Your task to perform on an android device: open app "Reddit" Image 0: 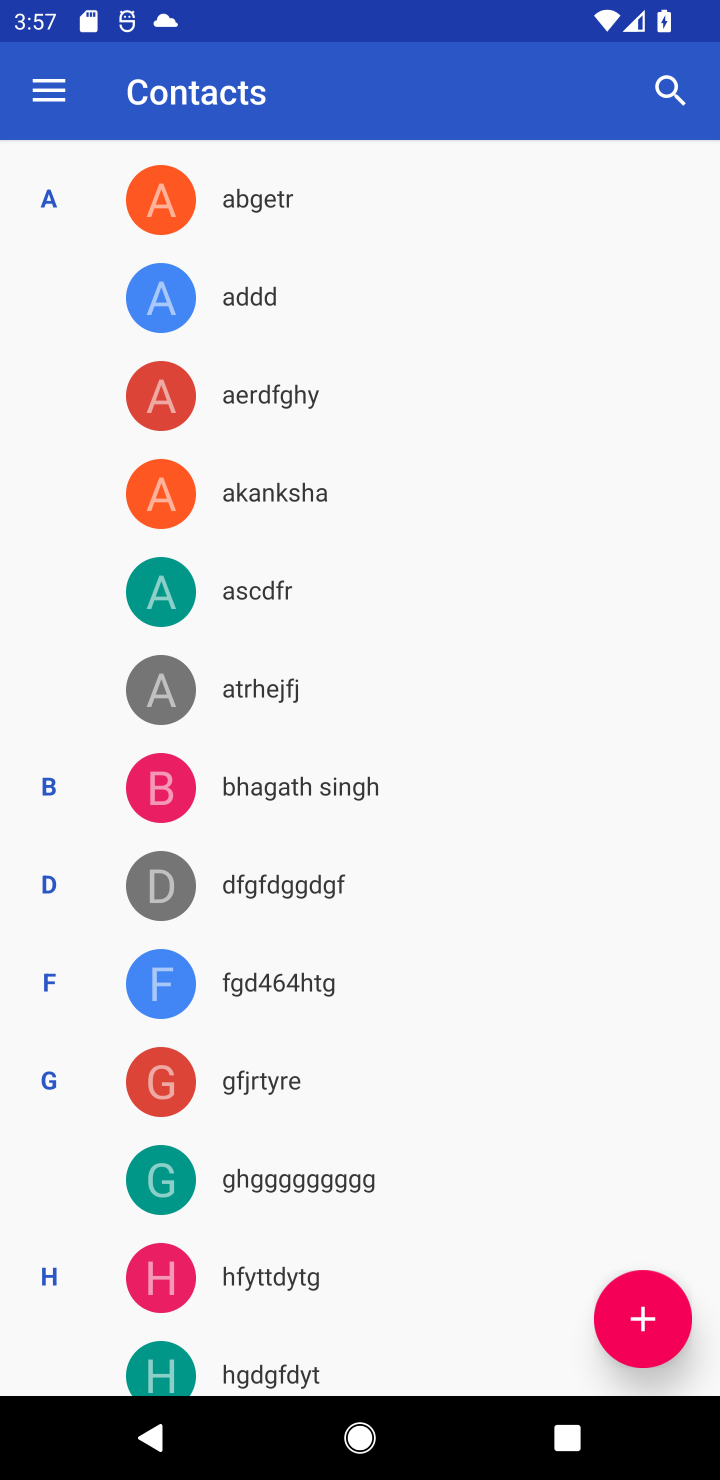
Step 0: press home button
Your task to perform on an android device: open app "Reddit" Image 1: 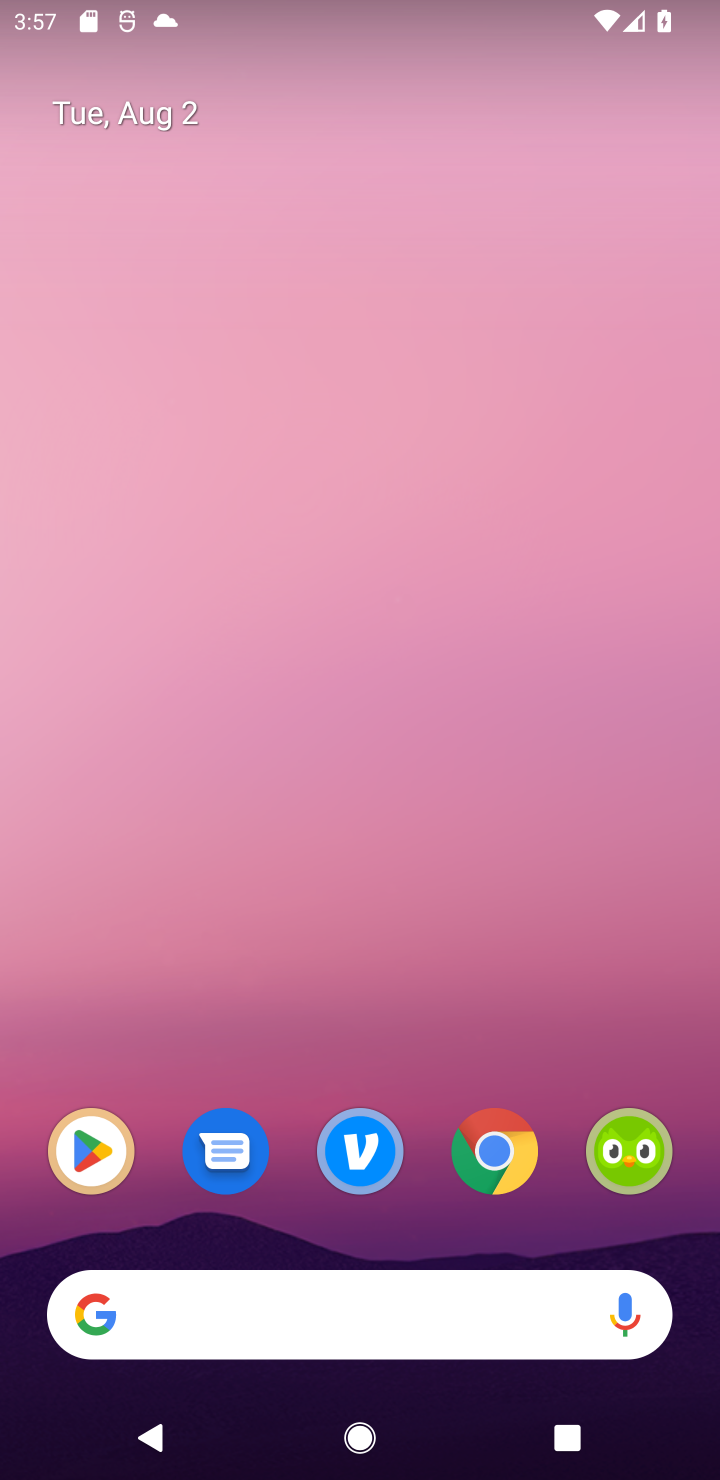
Step 1: drag from (381, 1298) to (416, 572)
Your task to perform on an android device: open app "Reddit" Image 2: 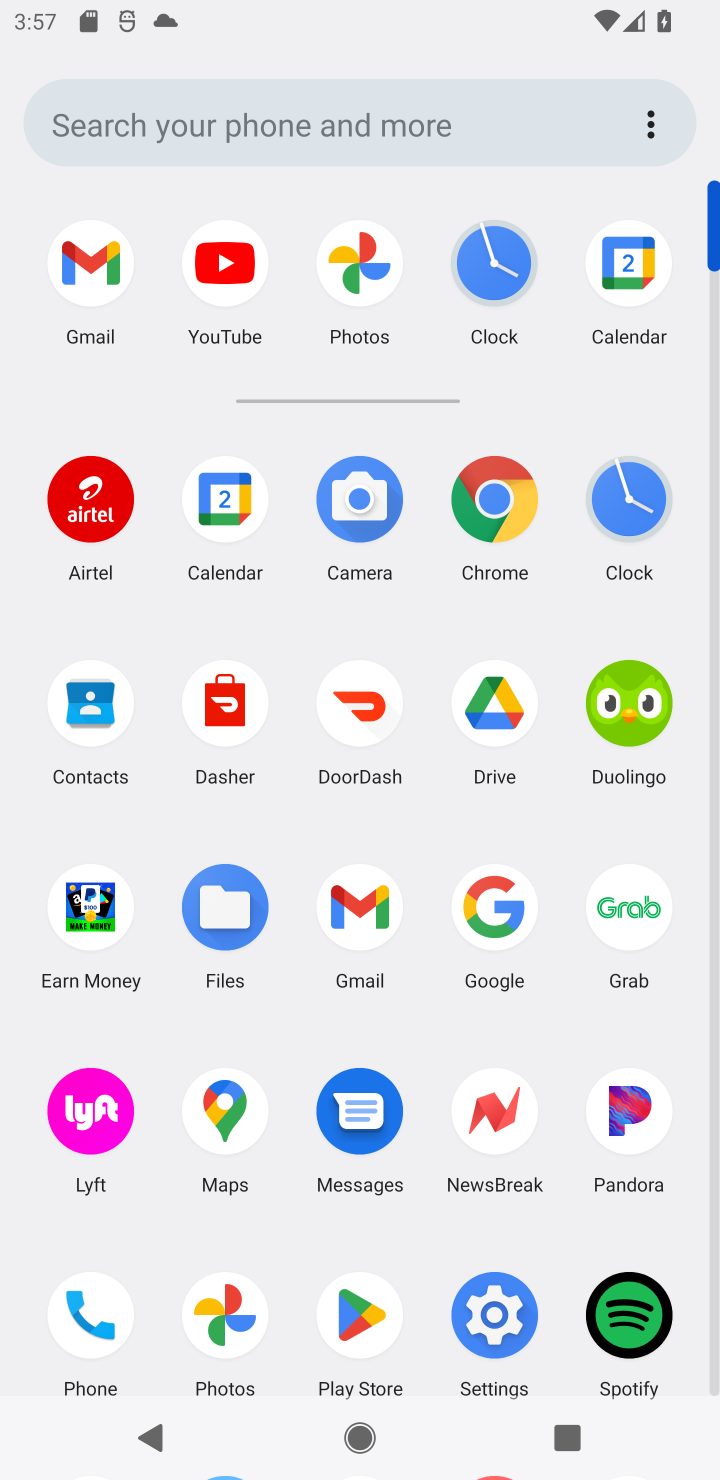
Step 2: drag from (408, 1148) to (429, 548)
Your task to perform on an android device: open app "Reddit" Image 3: 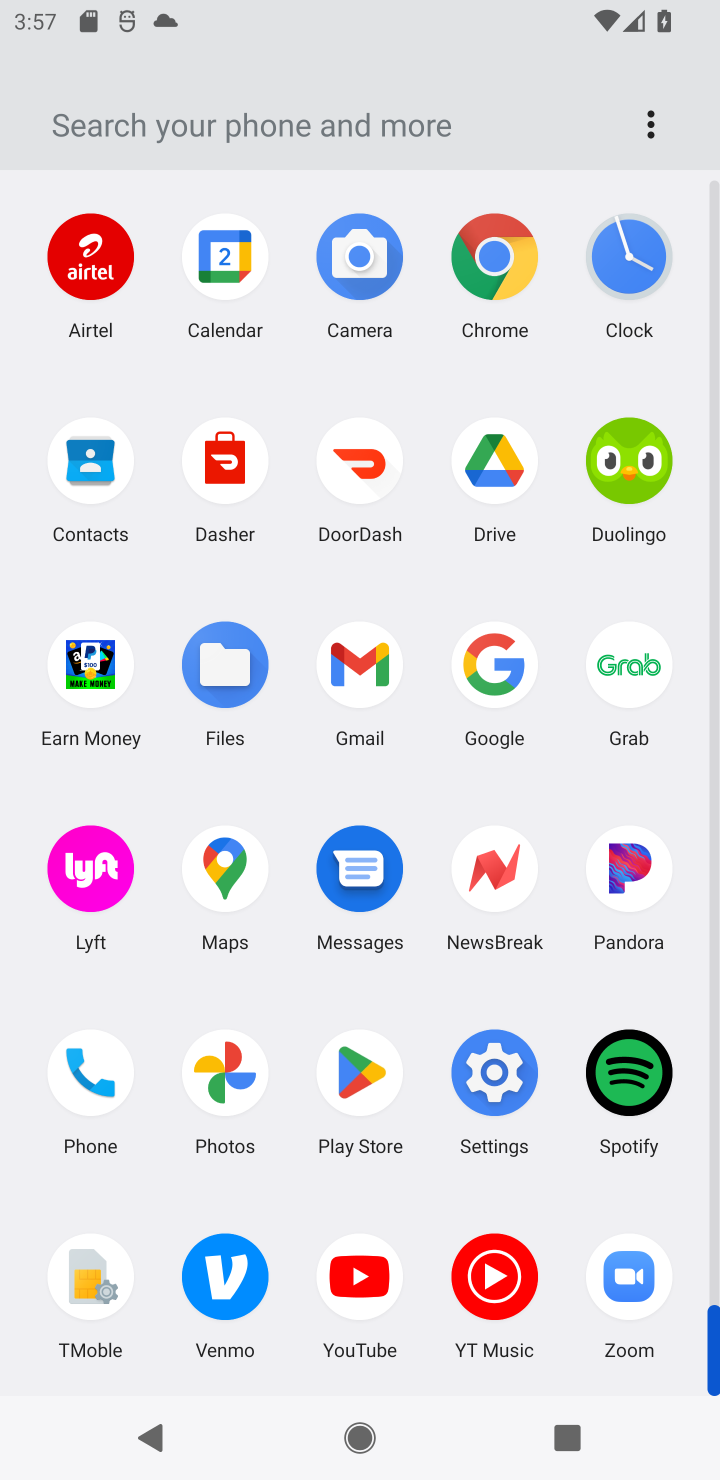
Step 3: click (335, 1146)
Your task to perform on an android device: open app "Reddit" Image 4: 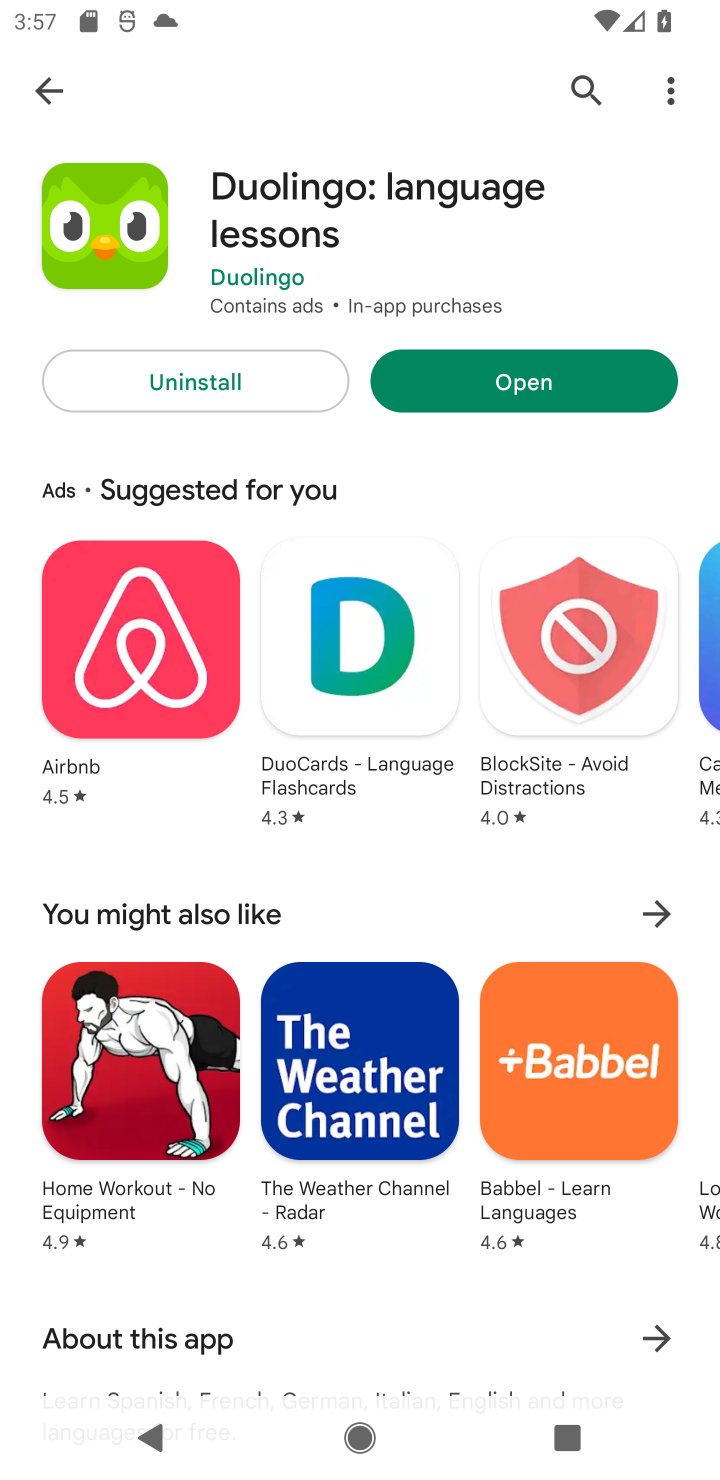
Step 4: click (51, 91)
Your task to perform on an android device: open app "Reddit" Image 5: 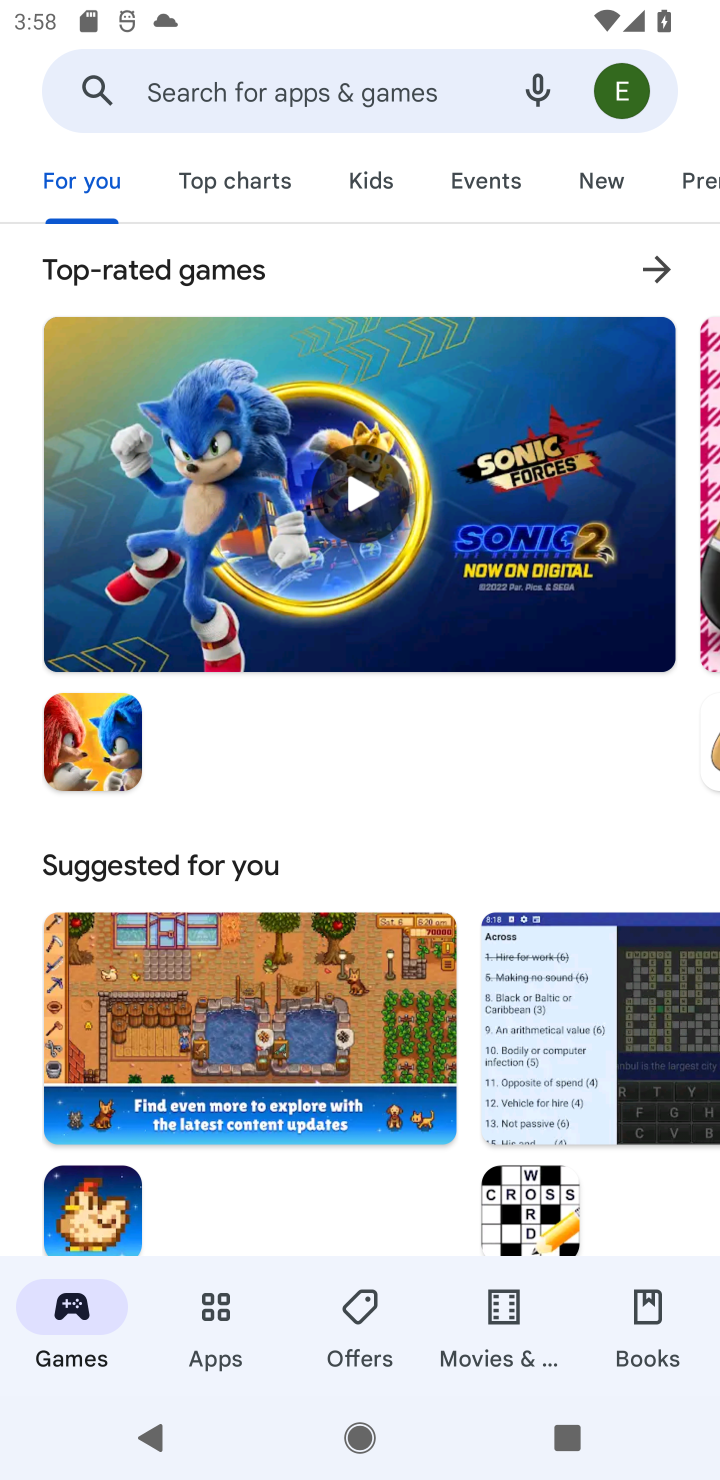
Step 5: click (286, 81)
Your task to perform on an android device: open app "Reddit" Image 6: 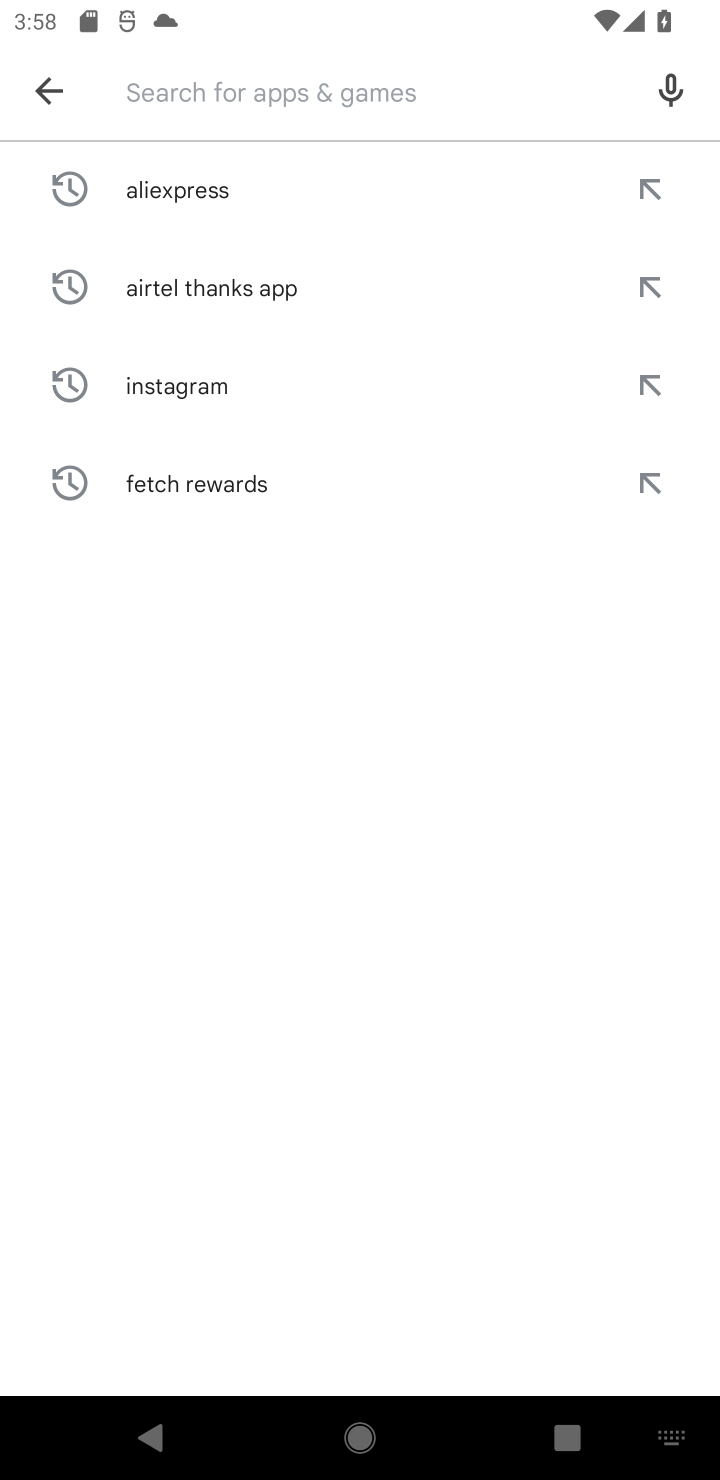
Step 6: type "Reddit"
Your task to perform on an android device: open app "Reddit" Image 7: 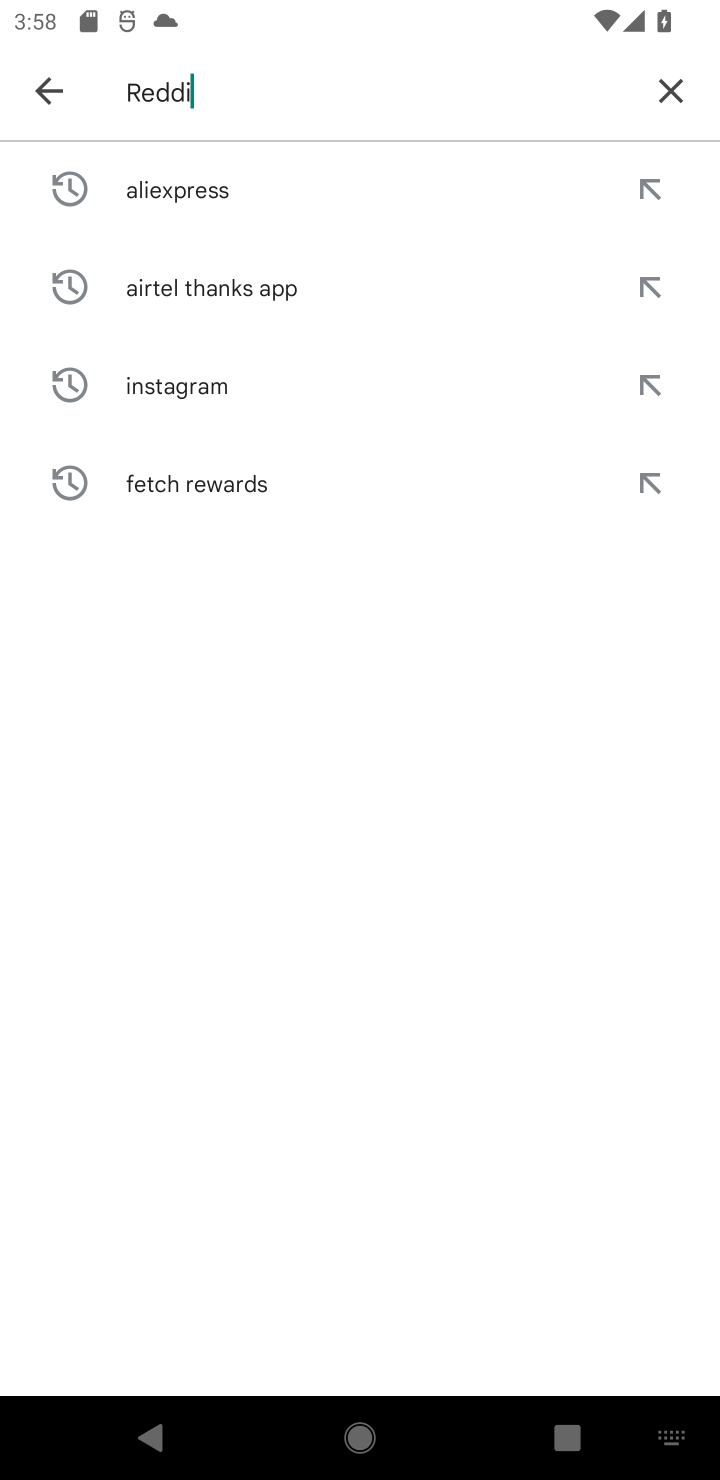
Step 7: type ""
Your task to perform on an android device: open app "Reddit" Image 8: 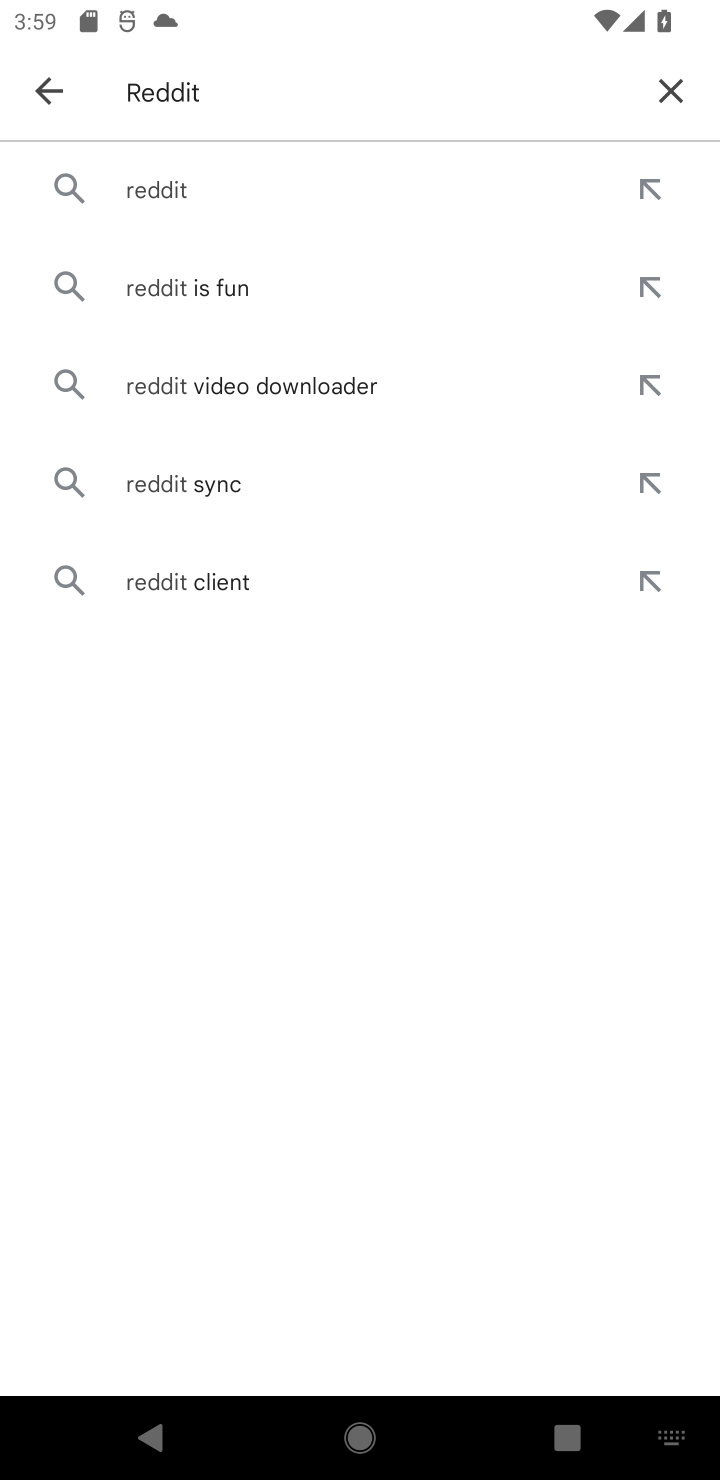
Step 8: click (195, 193)
Your task to perform on an android device: open app "Reddit" Image 9: 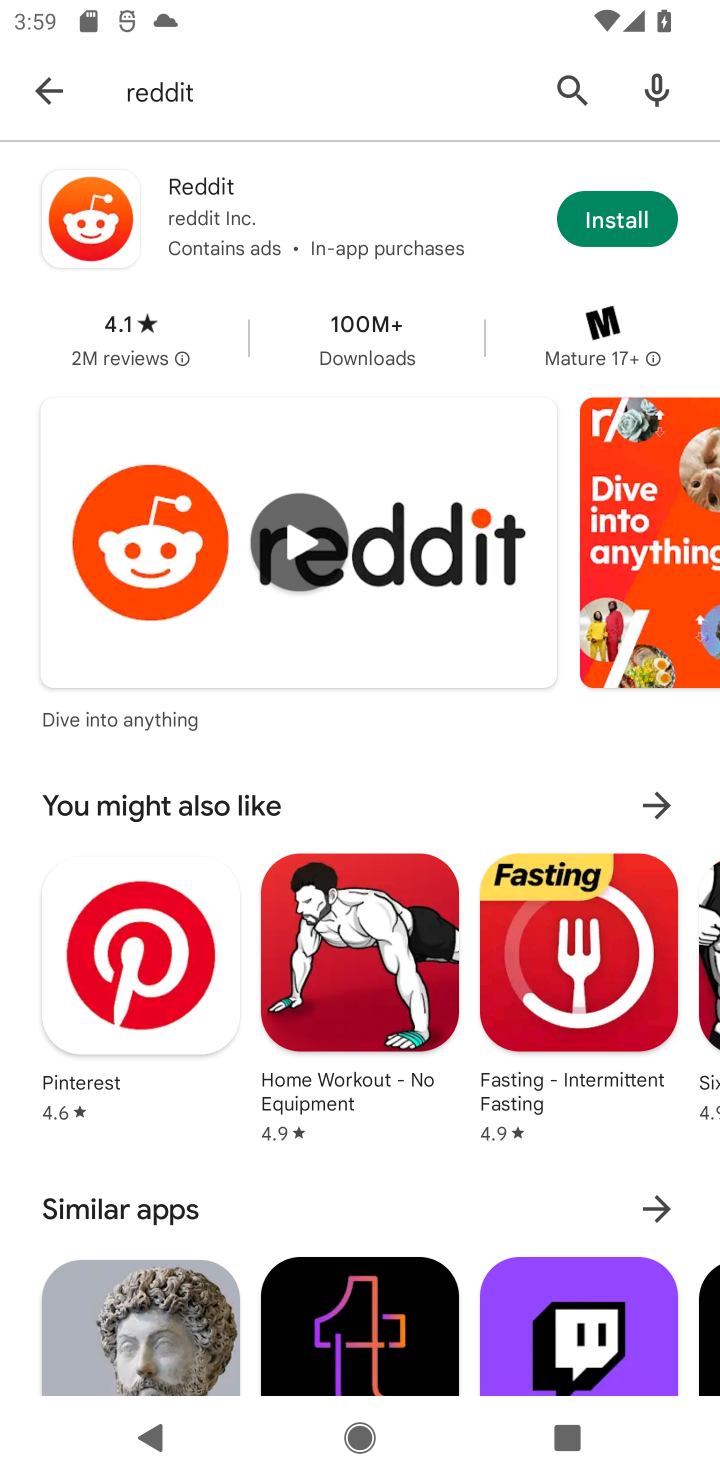
Step 9: task complete